Your task to perform on an android device: Show me recent news Image 0: 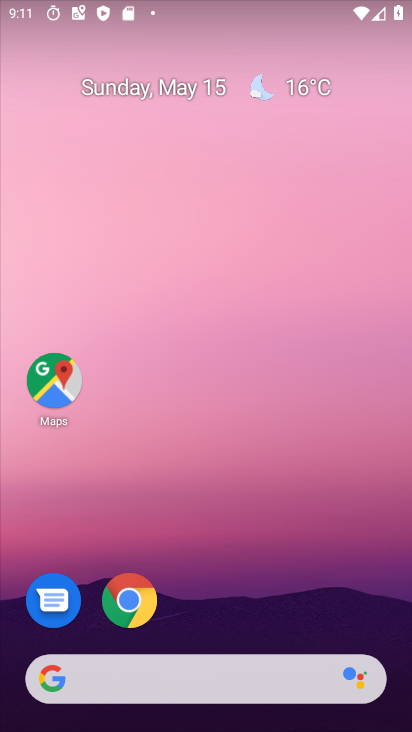
Step 0: drag from (242, 589) to (261, 161)
Your task to perform on an android device: Show me recent news Image 1: 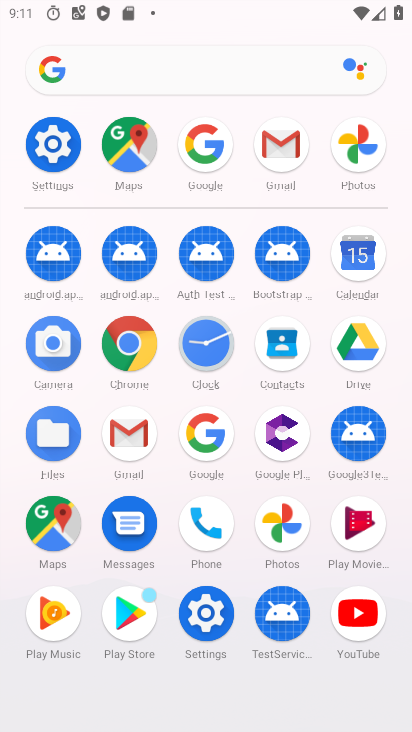
Step 1: click (211, 429)
Your task to perform on an android device: Show me recent news Image 2: 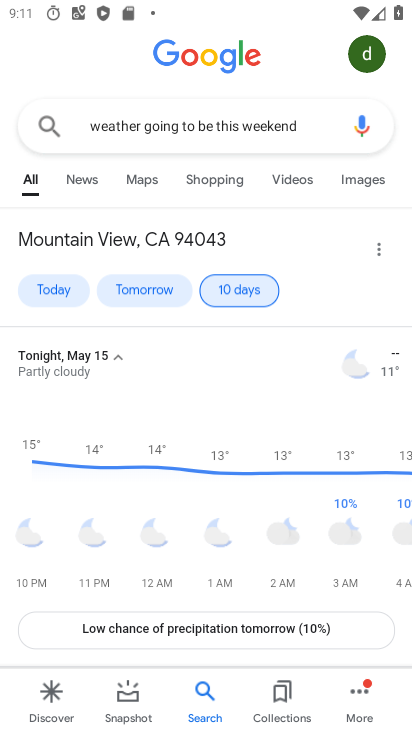
Step 2: click (309, 111)
Your task to perform on an android device: Show me recent news Image 3: 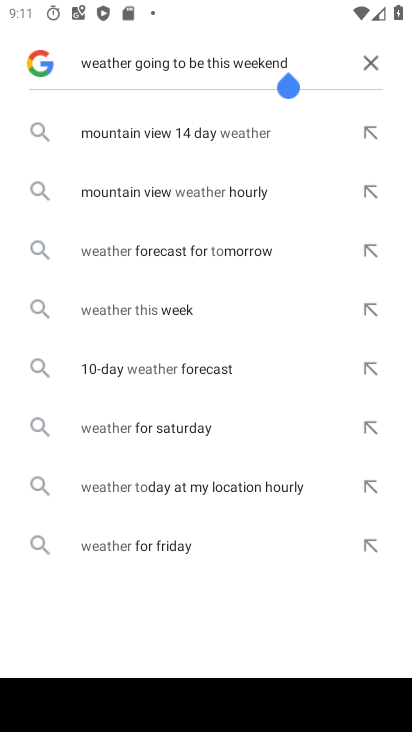
Step 3: click (362, 64)
Your task to perform on an android device: Show me recent news Image 4: 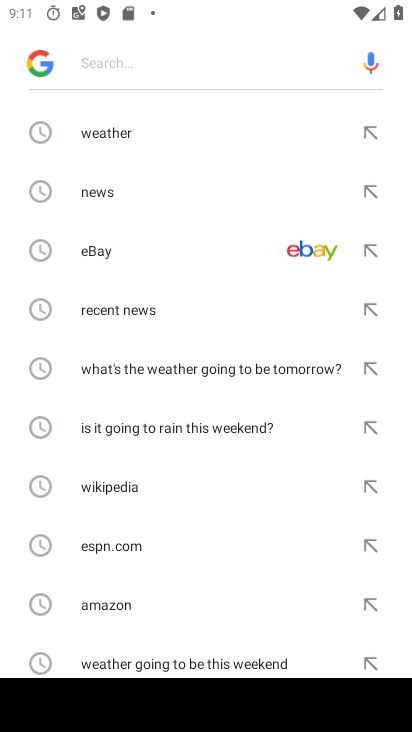
Step 4: click (131, 294)
Your task to perform on an android device: Show me recent news Image 5: 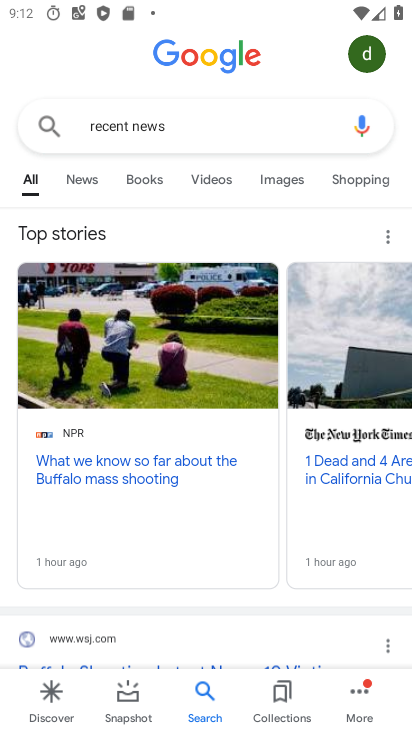
Step 5: task complete